Your task to perform on an android device: Open calendar and show me the third week of next month Image 0: 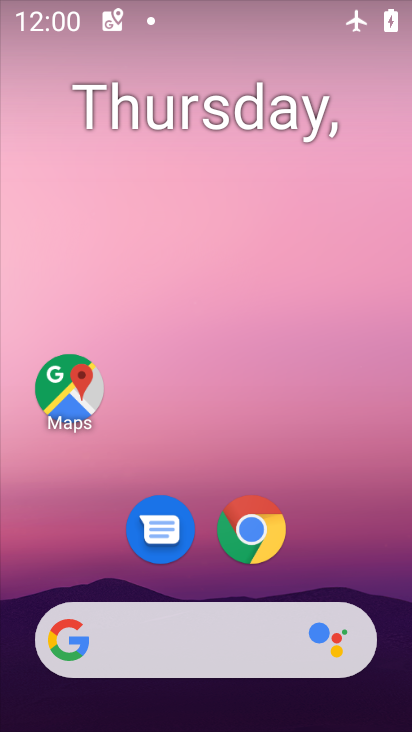
Step 0: drag from (392, 632) to (329, 186)
Your task to perform on an android device: Open calendar and show me the third week of next month Image 1: 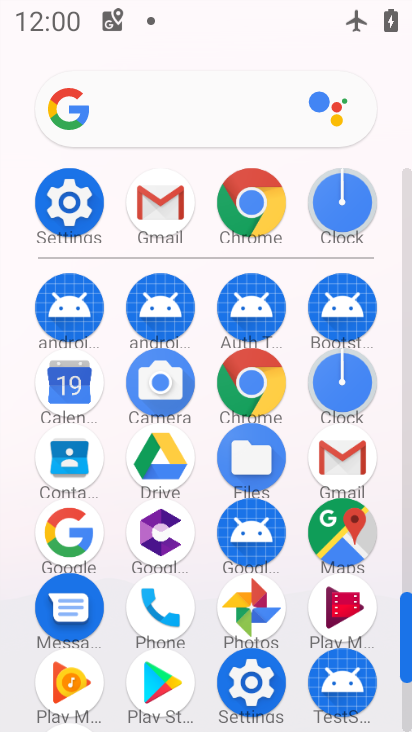
Step 1: click (69, 378)
Your task to perform on an android device: Open calendar and show me the third week of next month Image 2: 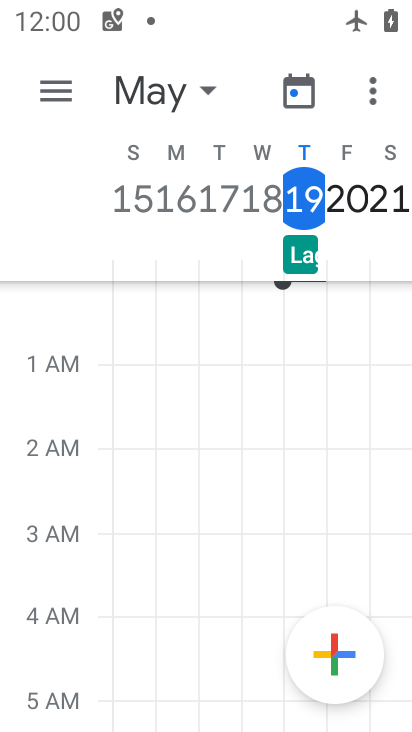
Step 2: click (195, 88)
Your task to perform on an android device: Open calendar and show me the third week of next month Image 3: 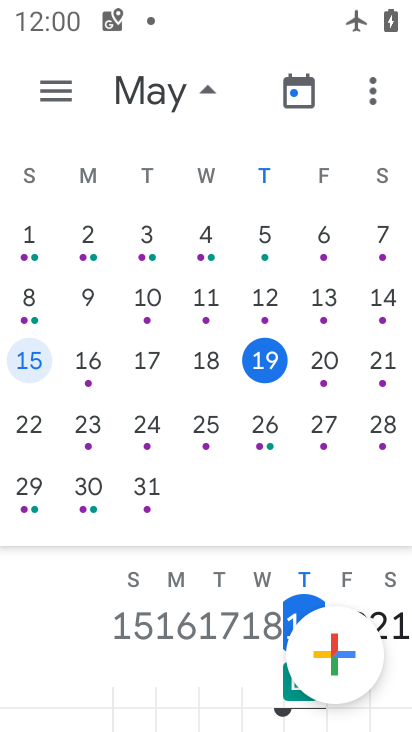
Step 3: drag from (390, 349) to (44, 290)
Your task to perform on an android device: Open calendar and show me the third week of next month Image 4: 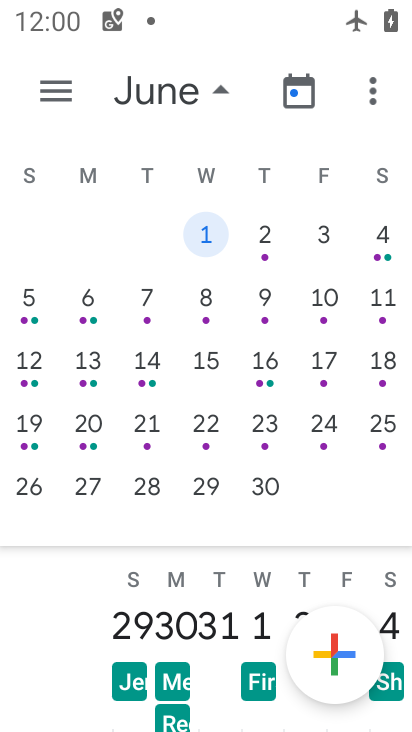
Step 4: click (9, 362)
Your task to perform on an android device: Open calendar and show me the third week of next month Image 5: 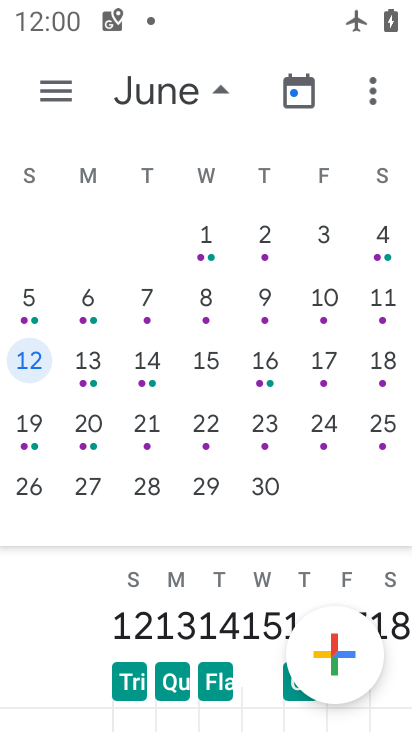
Step 5: task complete